Your task to perform on an android device: turn off notifications in google photos Image 0: 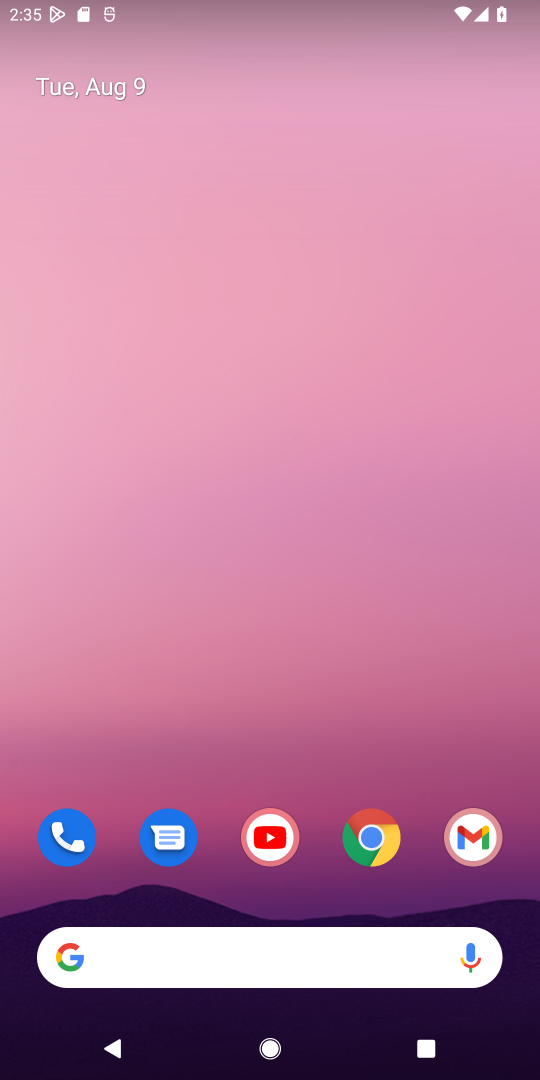
Step 0: drag from (69, 538) to (268, 78)
Your task to perform on an android device: turn off notifications in google photos Image 1: 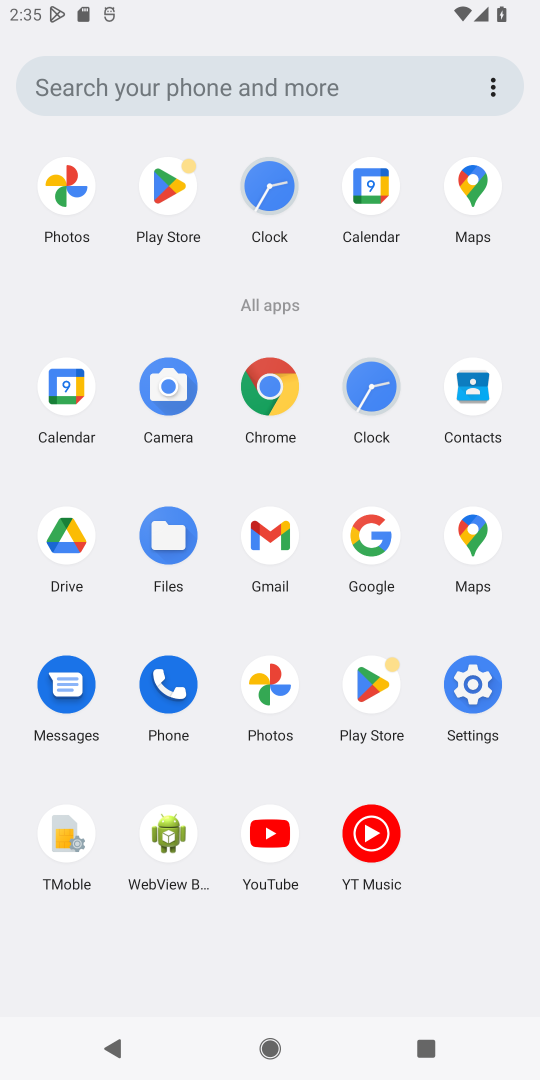
Step 1: drag from (248, 931) to (255, 617)
Your task to perform on an android device: turn off notifications in google photos Image 2: 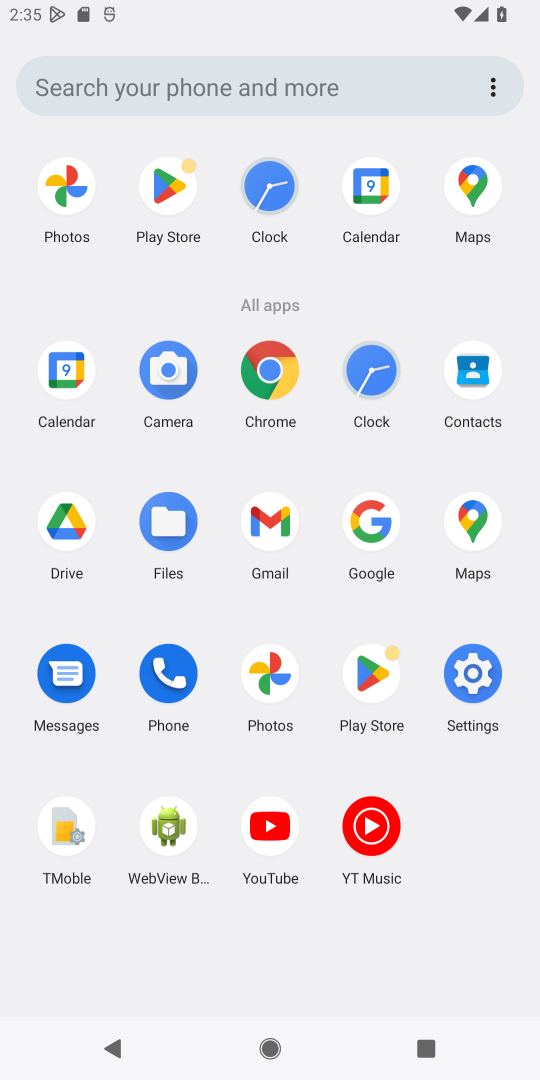
Step 2: click (258, 668)
Your task to perform on an android device: turn off notifications in google photos Image 3: 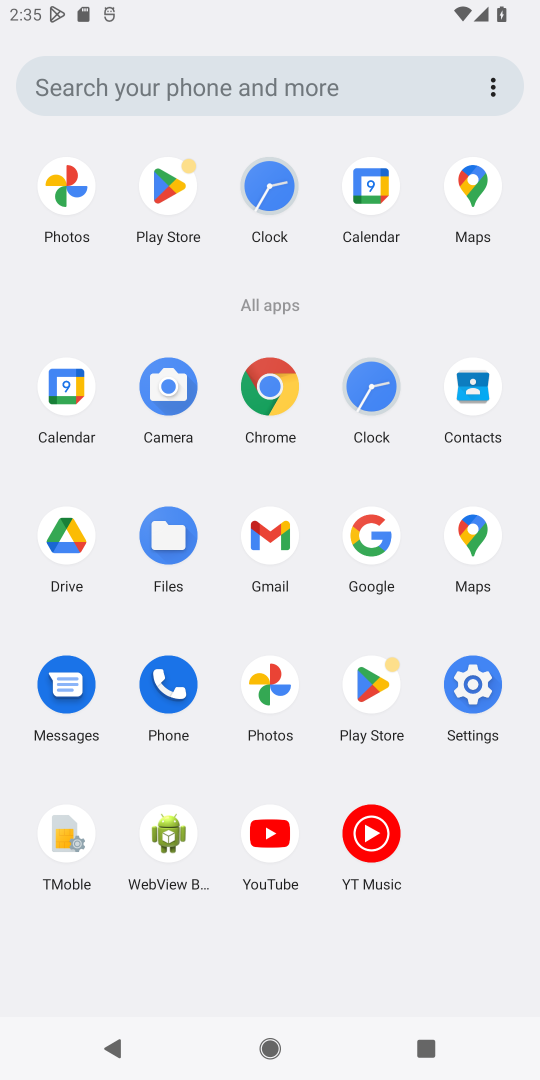
Step 3: click (250, 668)
Your task to perform on an android device: turn off notifications in google photos Image 4: 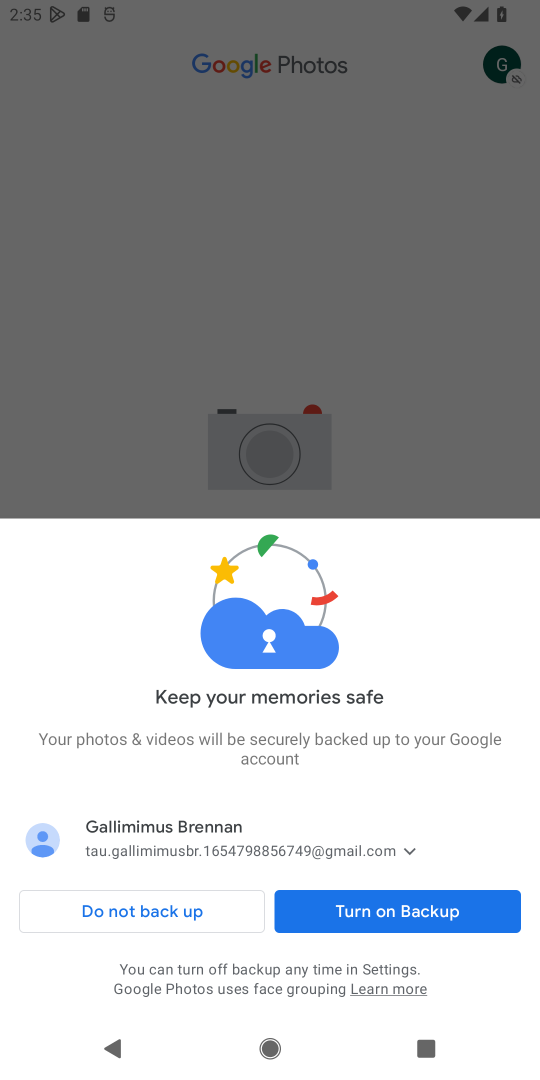
Step 4: click (358, 352)
Your task to perform on an android device: turn off notifications in google photos Image 5: 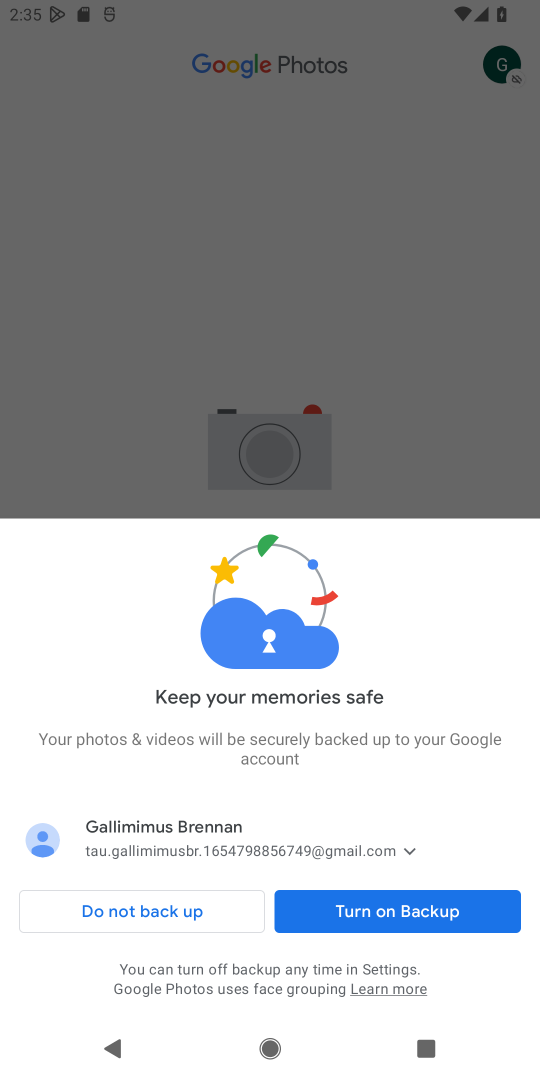
Step 5: click (145, 909)
Your task to perform on an android device: turn off notifications in google photos Image 6: 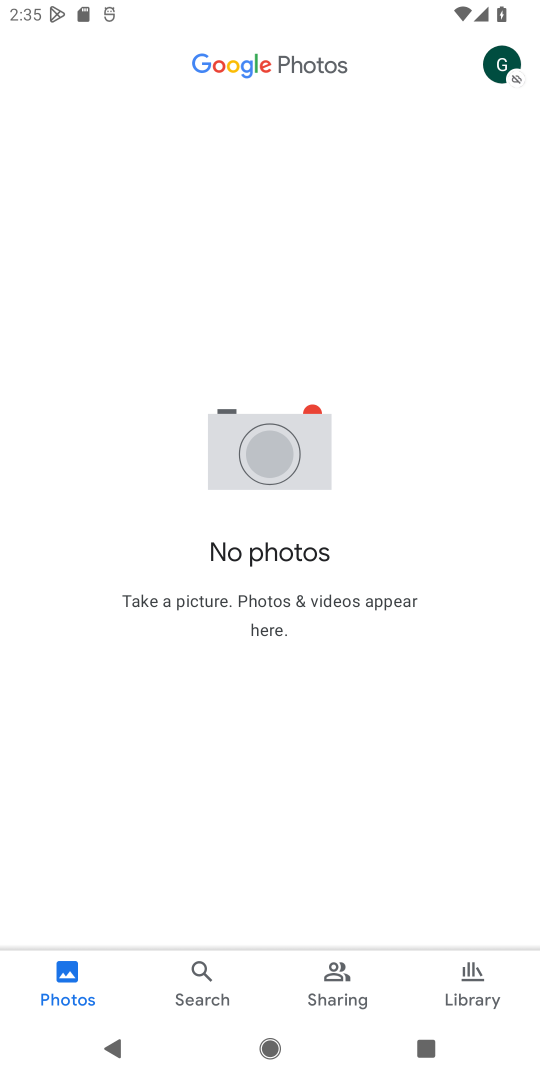
Step 6: click (501, 61)
Your task to perform on an android device: turn off notifications in google photos Image 7: 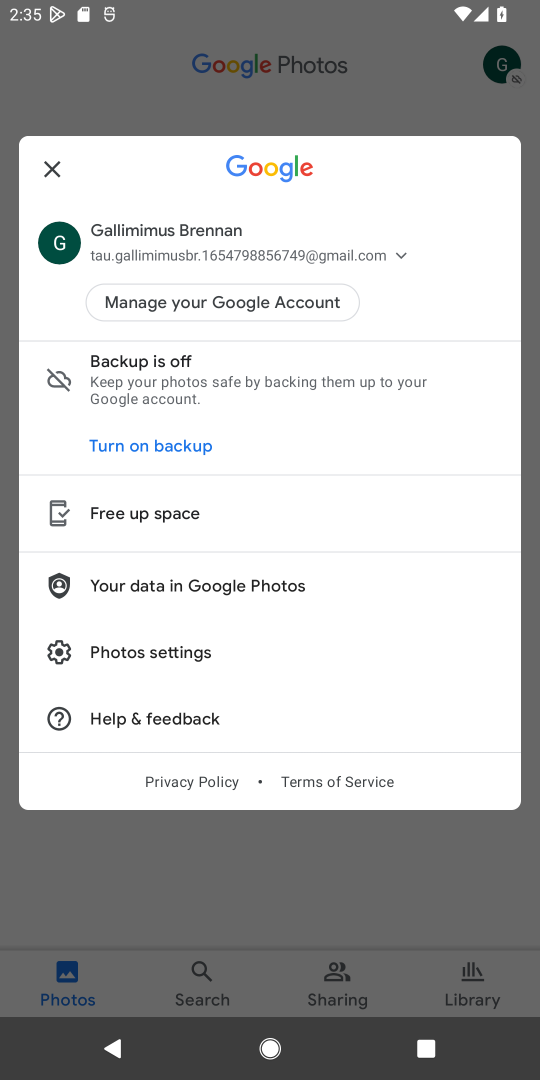
Step 7: click (172, 645)
Your task to perform on an android device: turn off notifications in google photos Image 8: 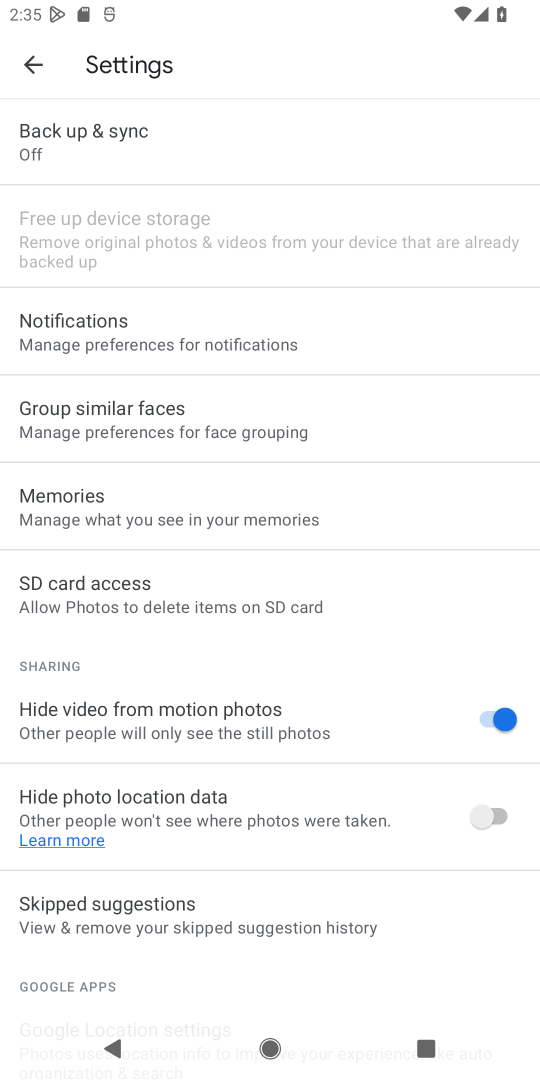
Step 8: click (147, 342)
Your task to perform on an android device: turn off notifications in google photos Image 9: 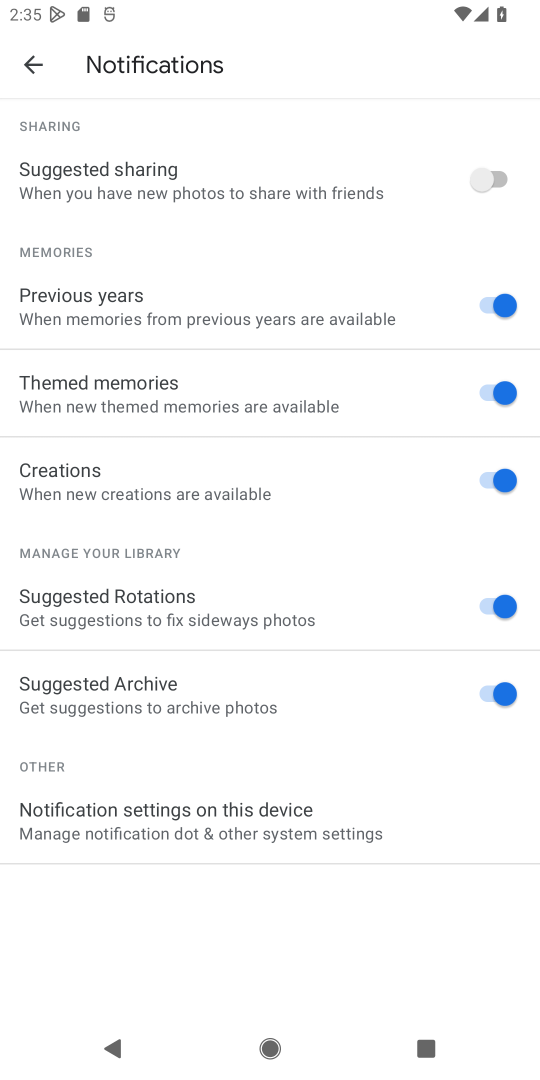
Step 9: click (33, 52)
Your task to perform on an android device: turn off notifications in google photos Image 10: 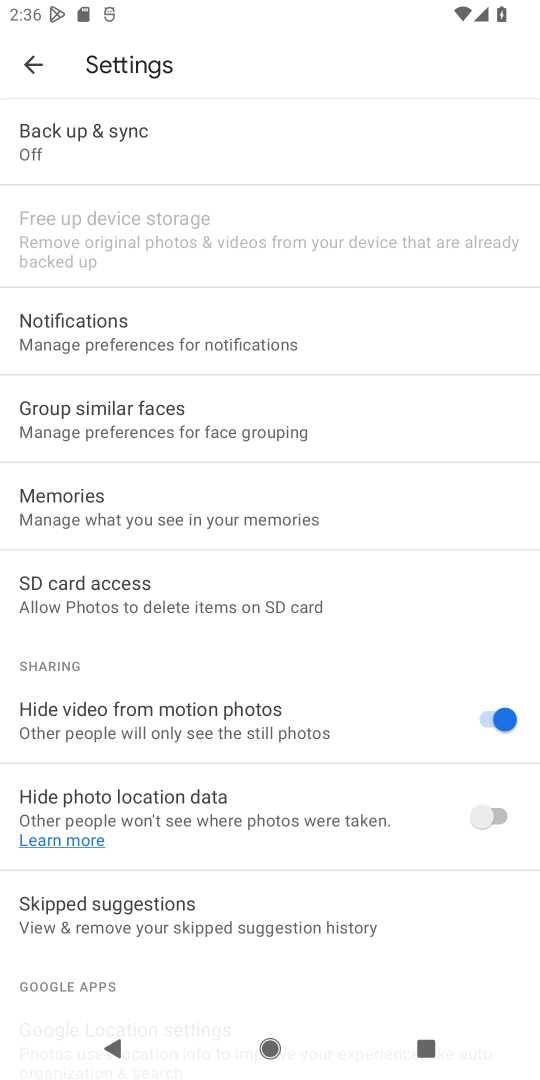
Step 10: click (84, 152)
Your task to perform on an android device: turn off notifications in google photos Image 11: 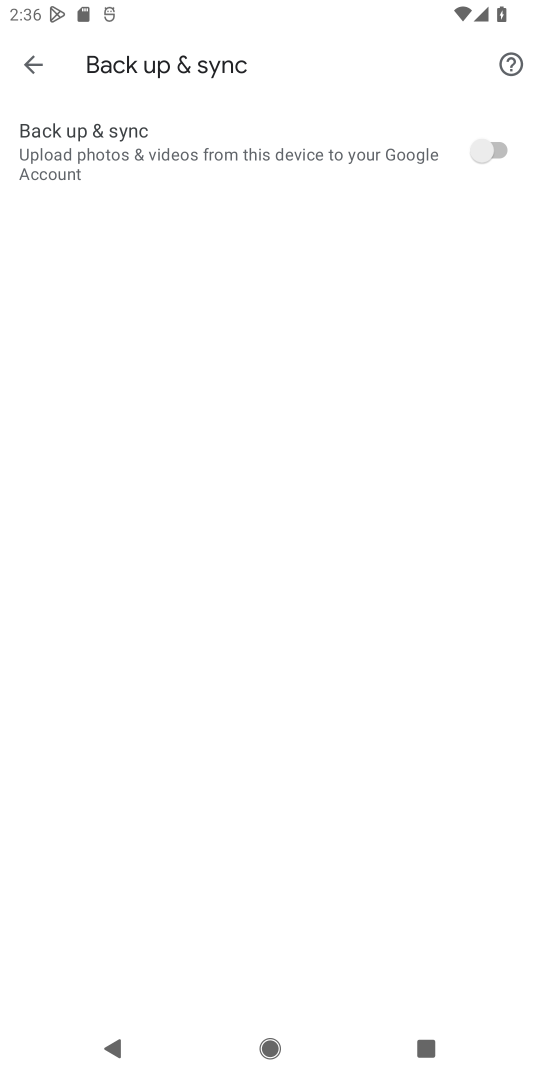
Step 11: click (29, 74)
Your task to perform on an android device: turn off notifications in google photos Image 12: 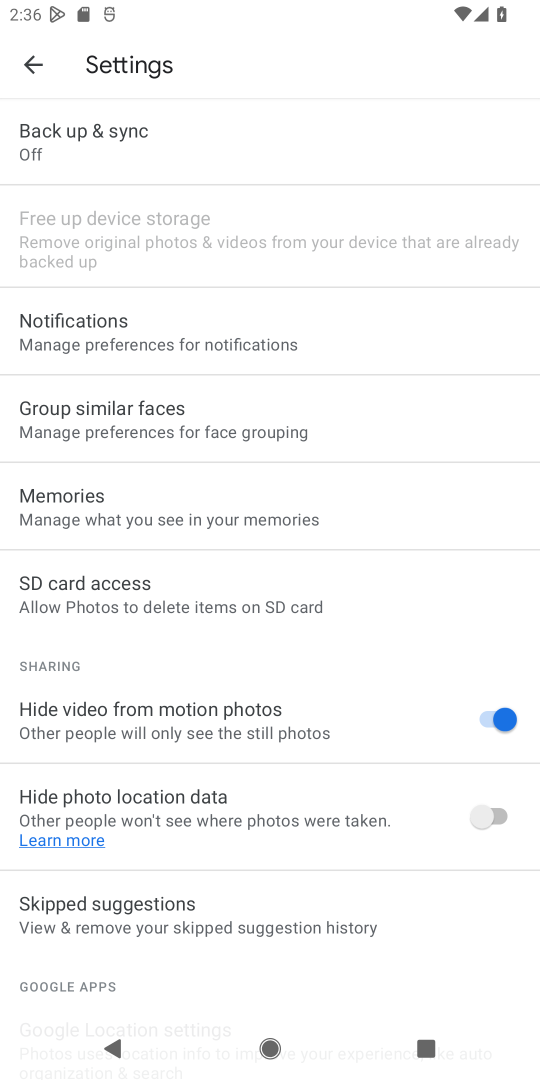
Step 12: click (161, 356)
Your task to perform on an android device: turn off notifications in google photos Image 13: 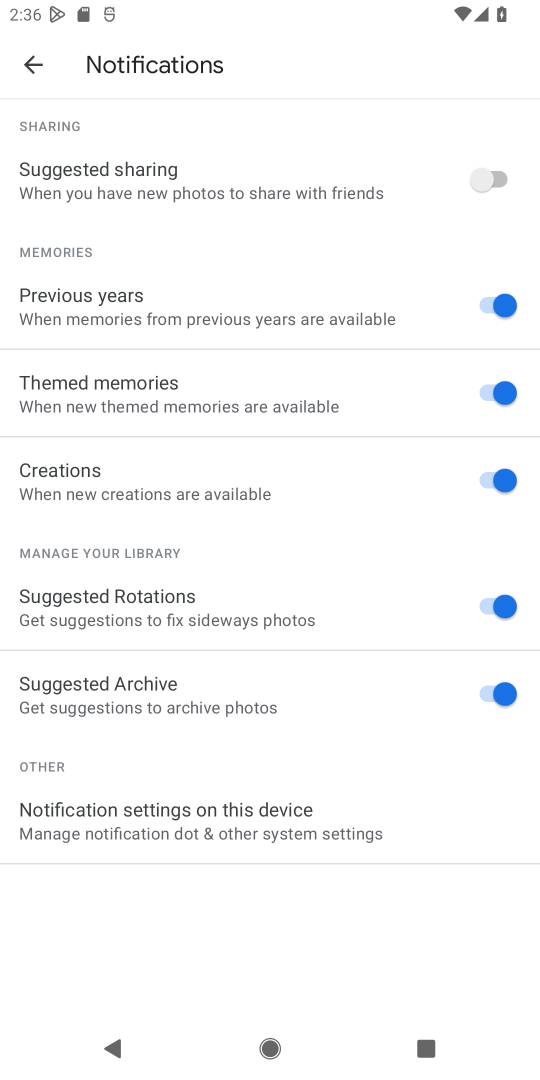
Step 13: click (202, 178)
Your task to perform on an android device: turn off notifications in google photos Image 14: 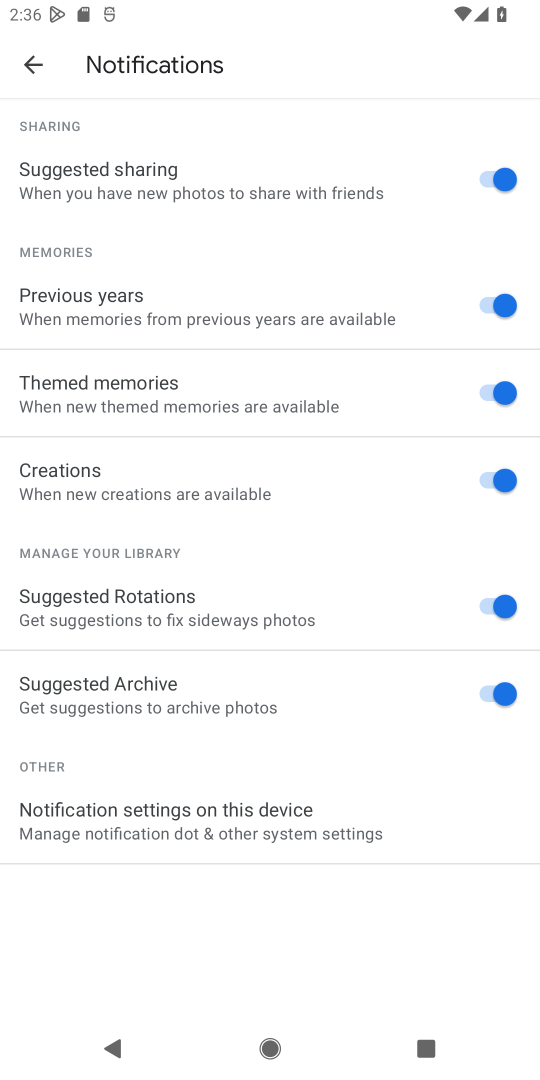
Step 14: click (494, 182)
Your task to perform on an android device: turn off notifications in google photos Image 15: 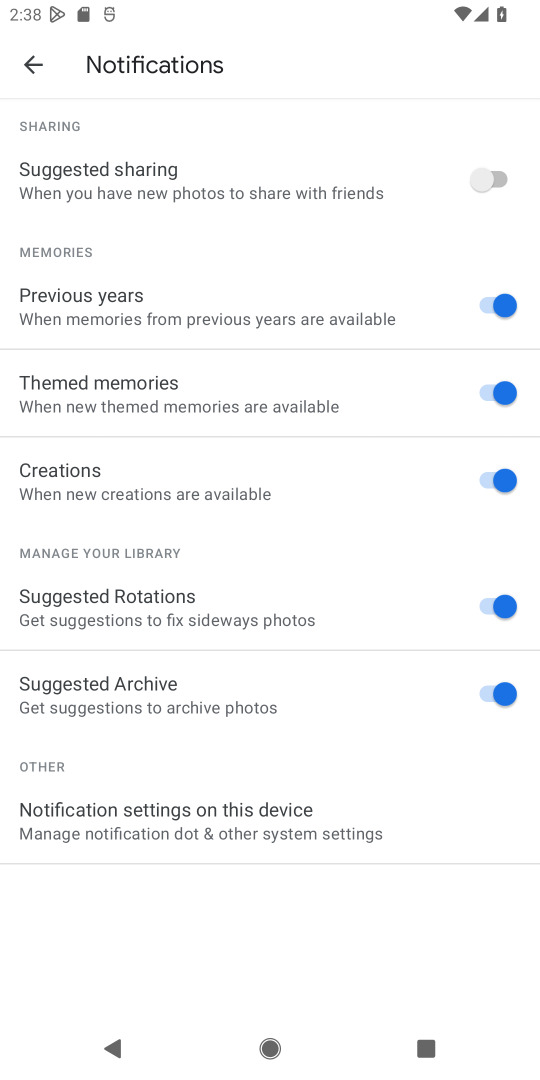
Step 15: task complete